Your task to perform on an android device: Go to sound settings Image 0: 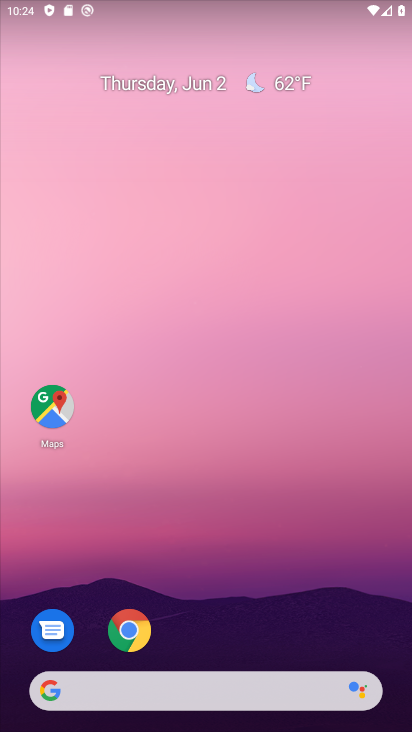
Step 0: drag from (219, 691) to (352, 163)
Your task to perform on an android device: Go to sound settings Image 1: 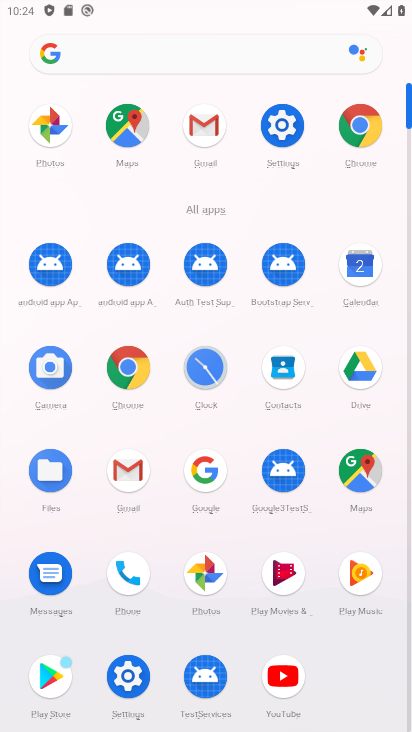
Step 1: click (284, 120)
Your task to perform on an android device: Go to sound settings Image 2: 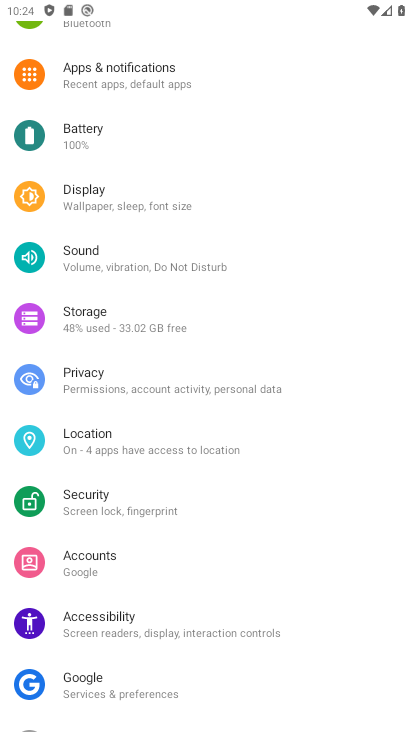
Step 2: click (84, 257)
Your task to perform on an android device: Go to sound settings Image 3: 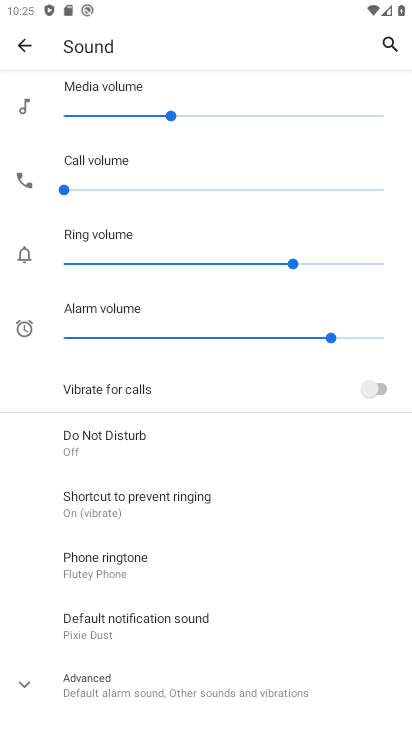
Step 3: task complete